Your task to perform on an android device: toggle notification dots Image 0: 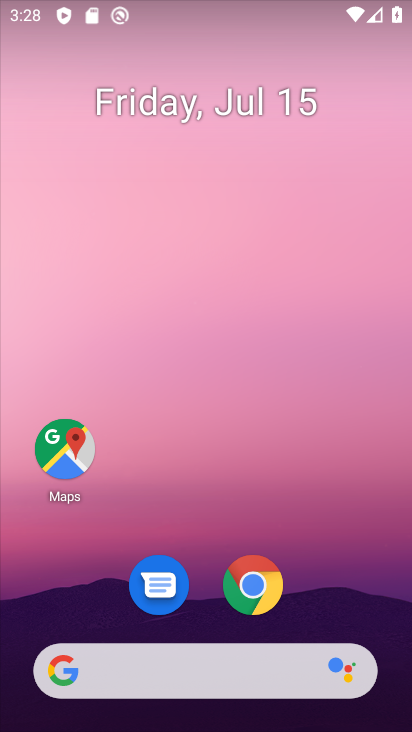
Step 0: drag from (304, 522) to (321, 10)
Your task to perform on an android device: toggle notification dots Image 1: 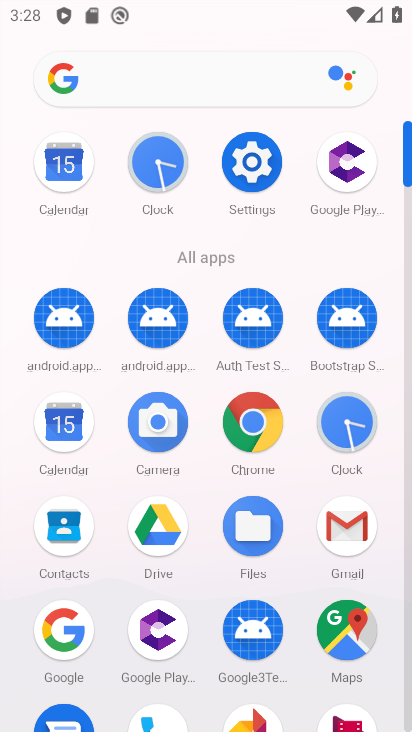
Step 1: click (267, 170)
Your task to perform on an android device: toggle notification dots Image 2: 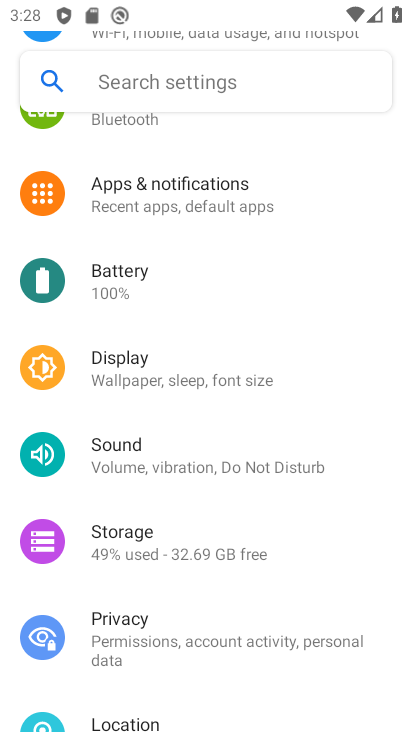
Step 2: click (206, 188)
Your task to perform on an android device: toggle notification dots Image 3: 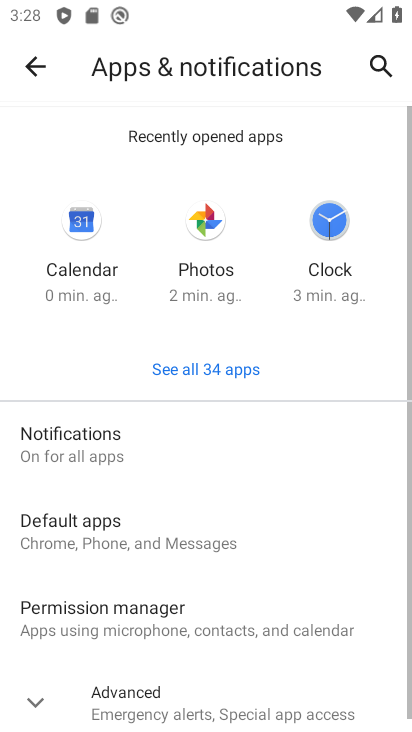
Step 3: click (110, 447)
Your task to perform on an android device: toggle notification dots Image 4: 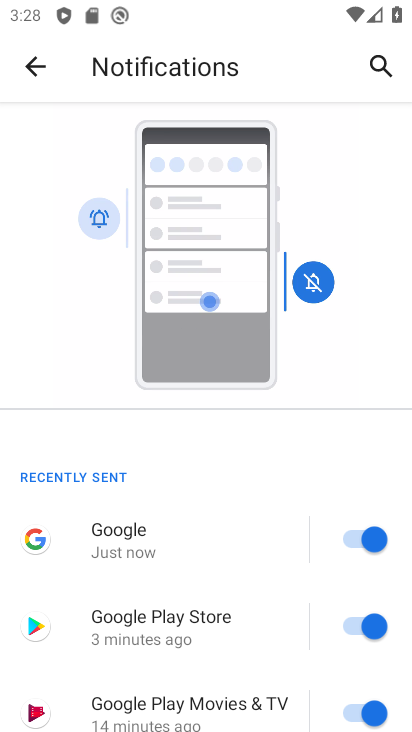
Step 4: drag from (222, 601) to (215, 185)
Your task to perform on an android device: toggle notification dots Image 5: 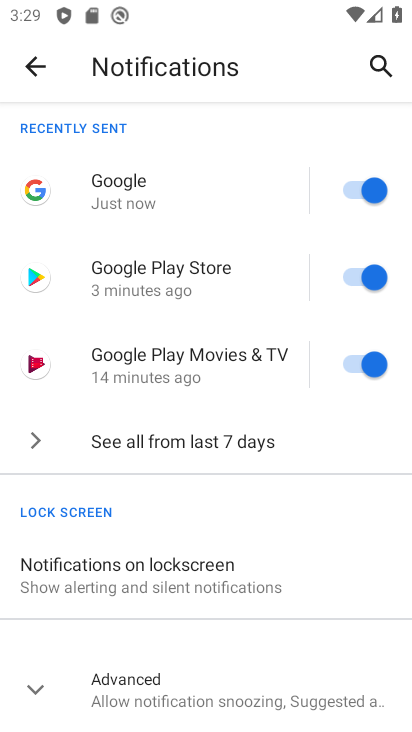
Step 5: drag from (194, 408) to (194, 275)
Your task to perform on an android device: toggle notification dots Image 6: 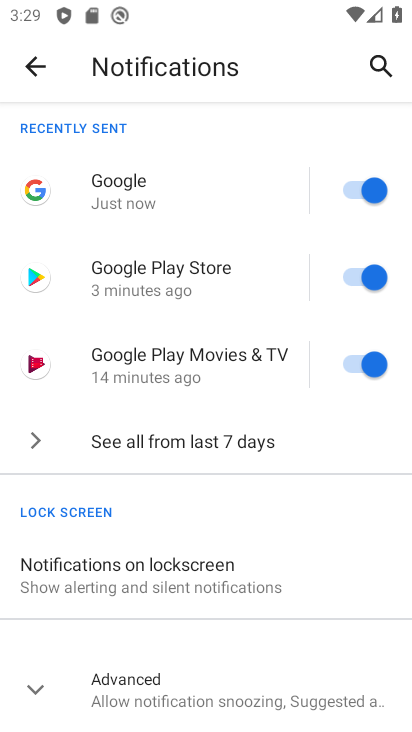
Step 6: click (38, 684)
Your task to perform on an android device: toggle notification dots Image 7: 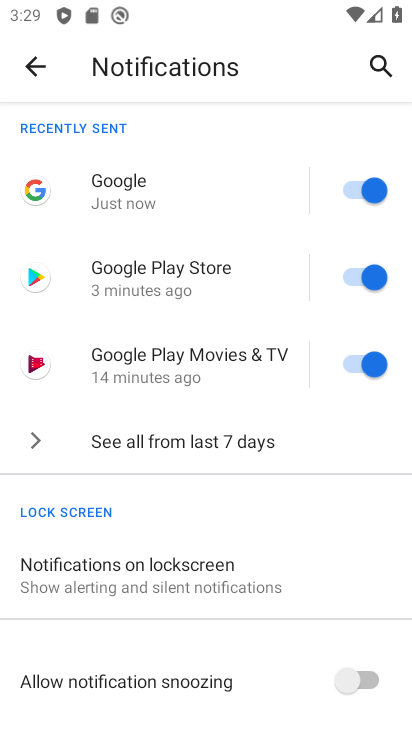
Step 7: drag from (222, 517) to (232, 153)
Your task to perform on an android device: toggle notification dots Image 8: 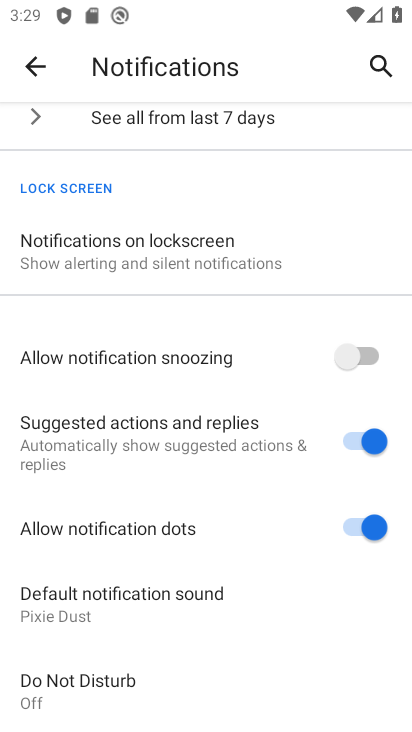
Step 8: click (355, 522)
Your task to perform on an android device: toggle notification dots Image 9: 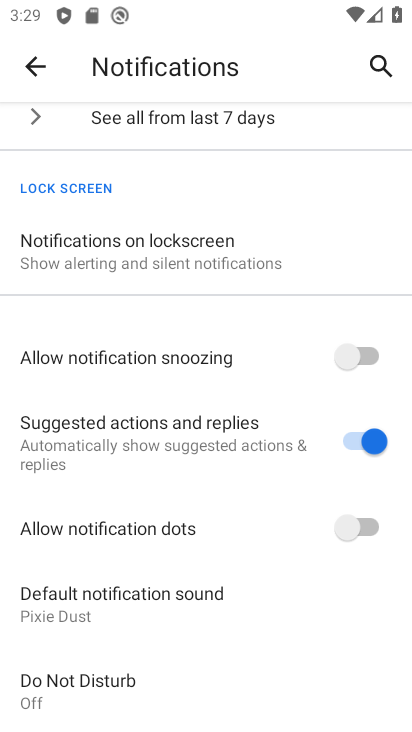
Step 9: task complete